Your task to perform on an android device: Toggle the flashlight Image 0: 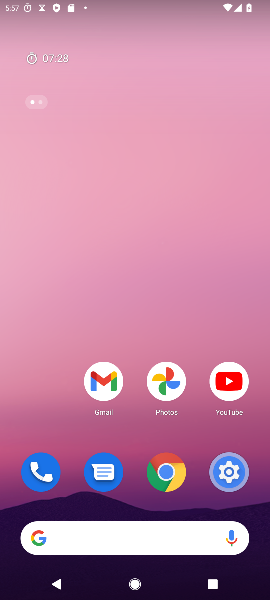
Step 0: press home button
Your task to perform on an android device: Toggle the flashlight Image 1: 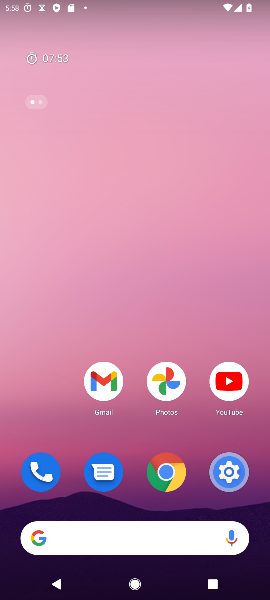
Step 1: task complete